Your task to perform on an android device: open a new tab in the chrome app Image 0: 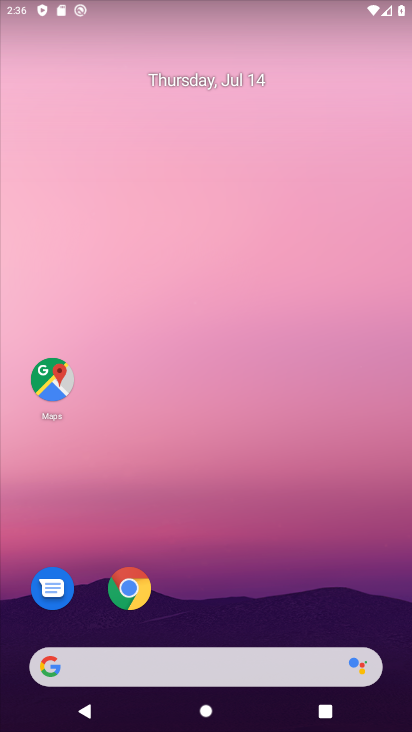
Step 0: click (141, 597)
Your task to perform on an android device: open a new tab in the chrome app Image 1: 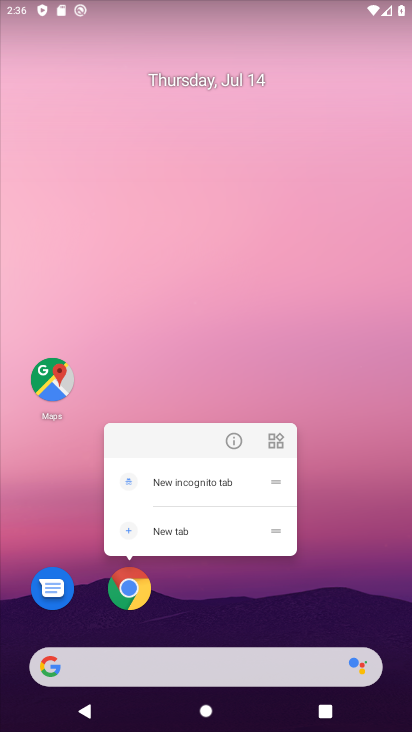
Step 1: click (136, 591)
Your task to perform on an android device: open a new tab in the chrome app Image 2: 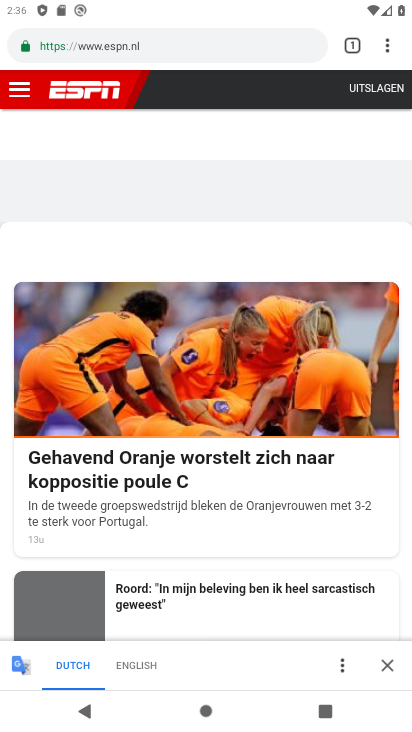
Step 2: click (345, 41)
Your task to perform on an android device: open a new tab in the chrome app Image 3: 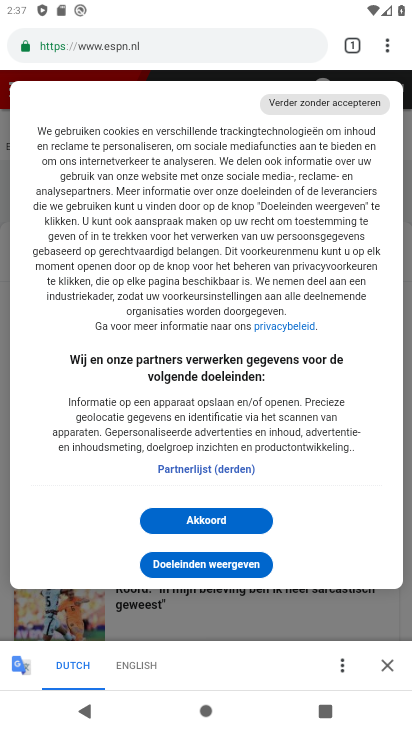
Step 3: click (355, 40)
Your task to perform on an android device: open a new tab in the chrome app Image 4: 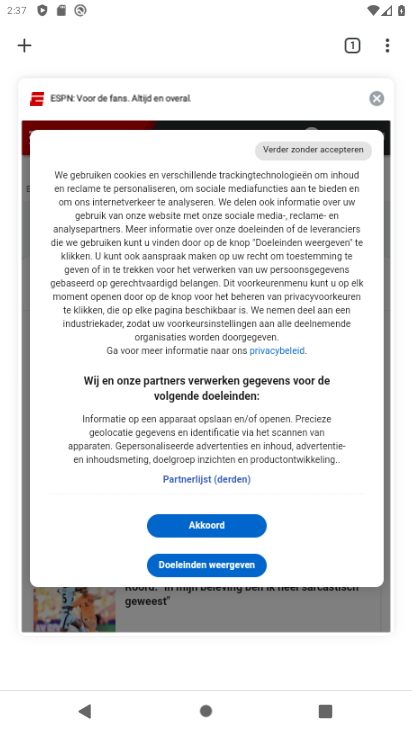
Step 4: click (28, 45)
Your task to perform on an android device: open a new tab in the chrome app Image 5: 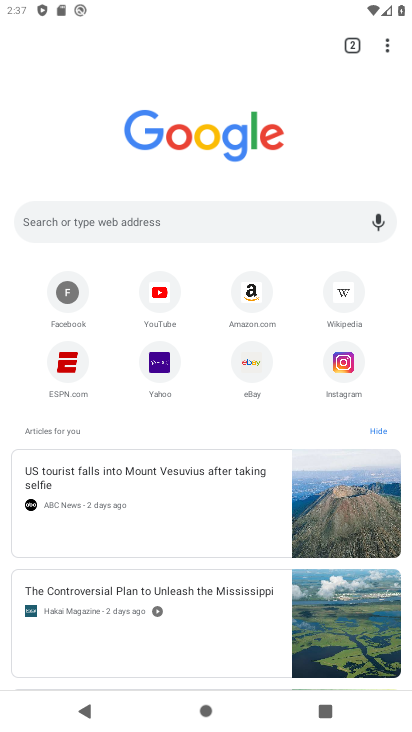
Step 5: task complete